Your task to perform on an android device: change your default location settings in chrome Image 0: 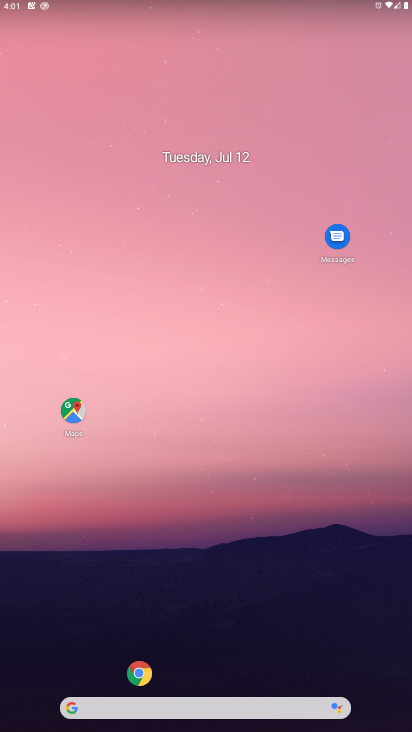
Step 0: click (151, 680)
Your task to perform on an android device: change your default location settings in chrome Image 1: 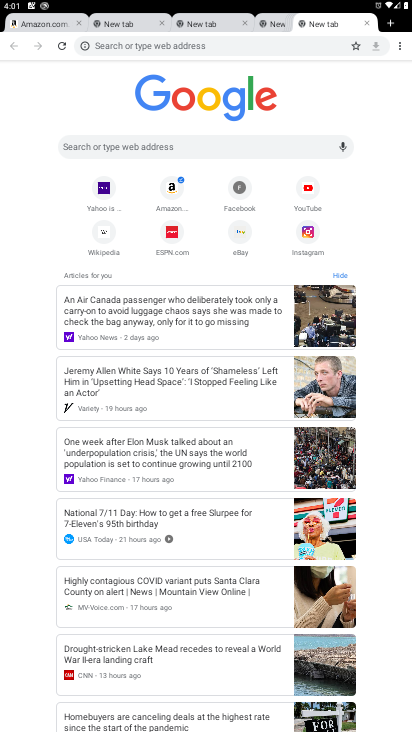
Step 1: click (404, 46)
Your task to perform on an android device: change your default location settings in chrome Image 2: 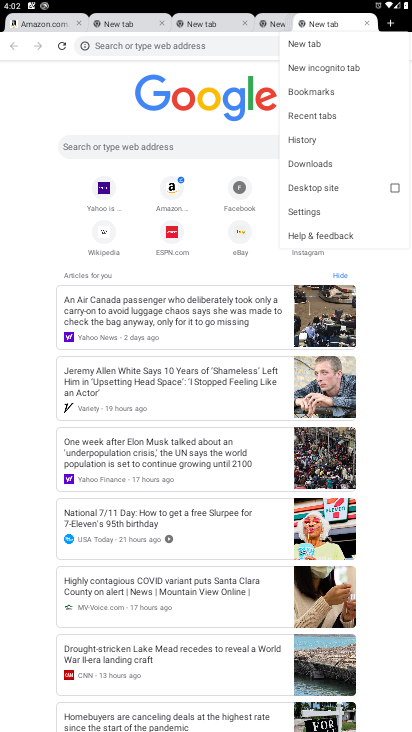
Step 2: click (311, 212)
Your task to perform on an android device: change your default location settings in chrome Image 3: 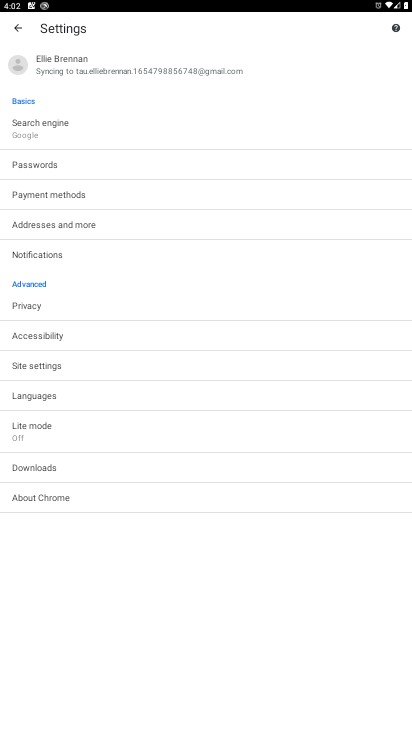
Step 3: click (54, 367)
Your task to perform on an android device: change your default location settings in chrome Image 4: 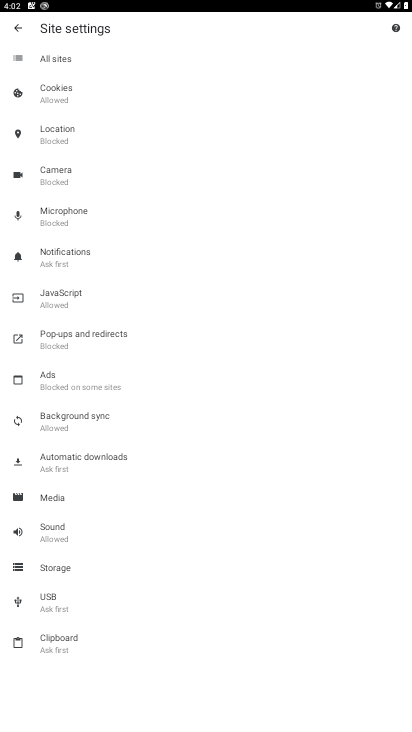
Step 4: click (82, 134)
Your task to perform on an android device: change your default location settings in chrome Image 5: 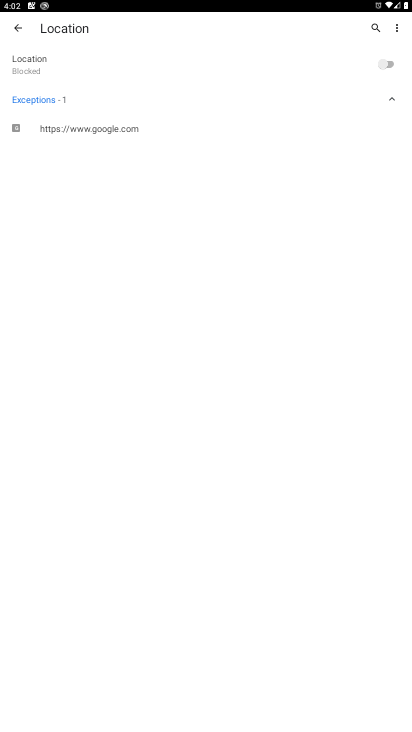
Step 5: click (380, 64)
Your task to perform on an android device: change your default location settings in chrome Image 6: 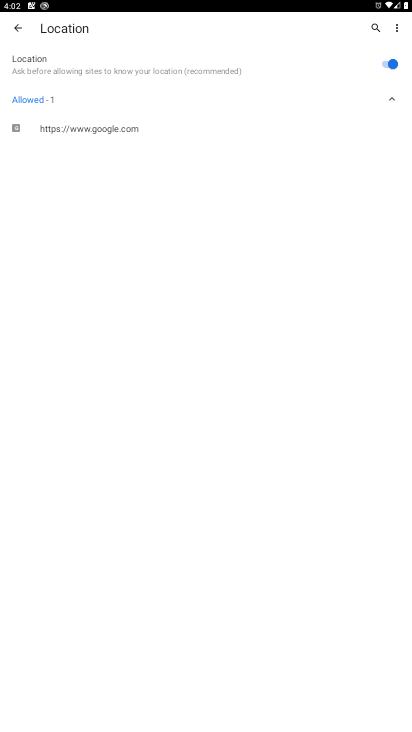
Step 6: task complete